Your task to perform on an android device: Open CNN.com Image 0: 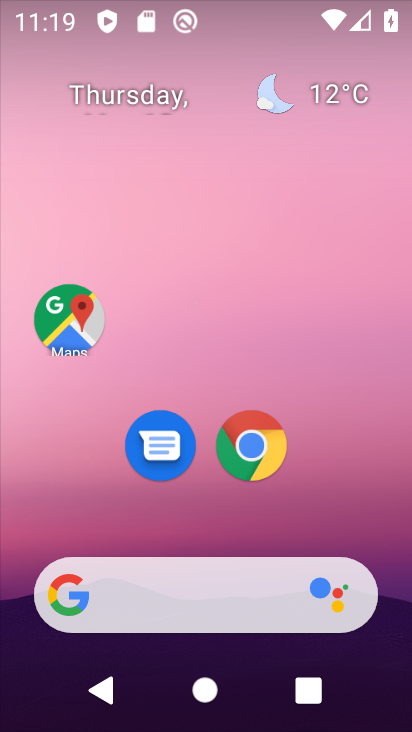
Step 0: click (238, 455)
Your task to perform on an android device: Open CNN.com Image 1: 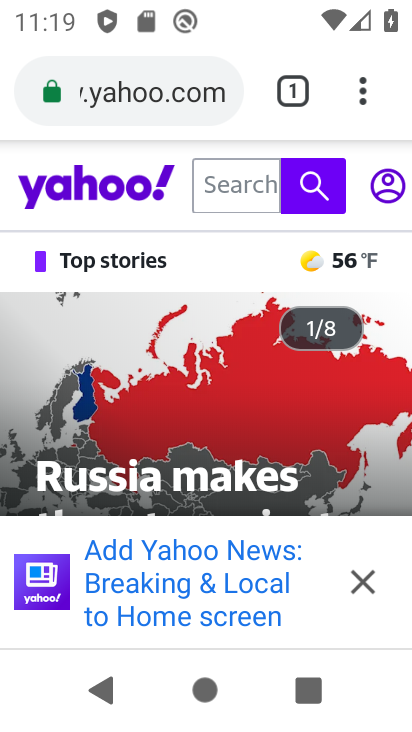
Step 1: click (148, 103)
Your task to perform on an android device: Open CNN.com Image 2: 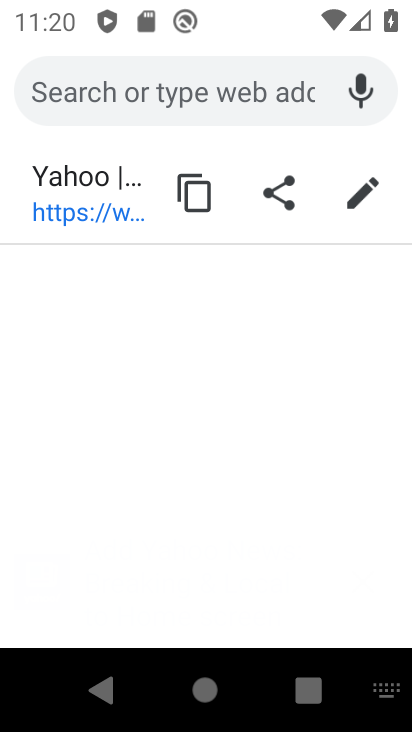
Step 2: type "cnn.com"
Your task to perform on an android device: Open CNN.com Image 3: 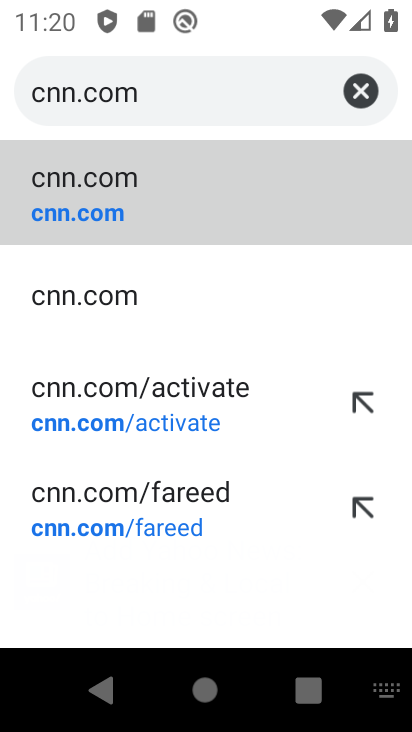
Step 3: click (149, 184)
Your task to perform on an android device: Open CNN.com Image 4: 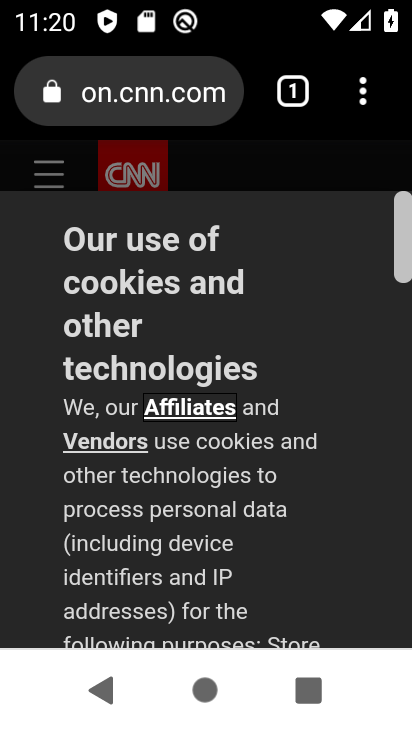
Step 4: task complete